Your task to perform on an android device: Go to settings Image 0: 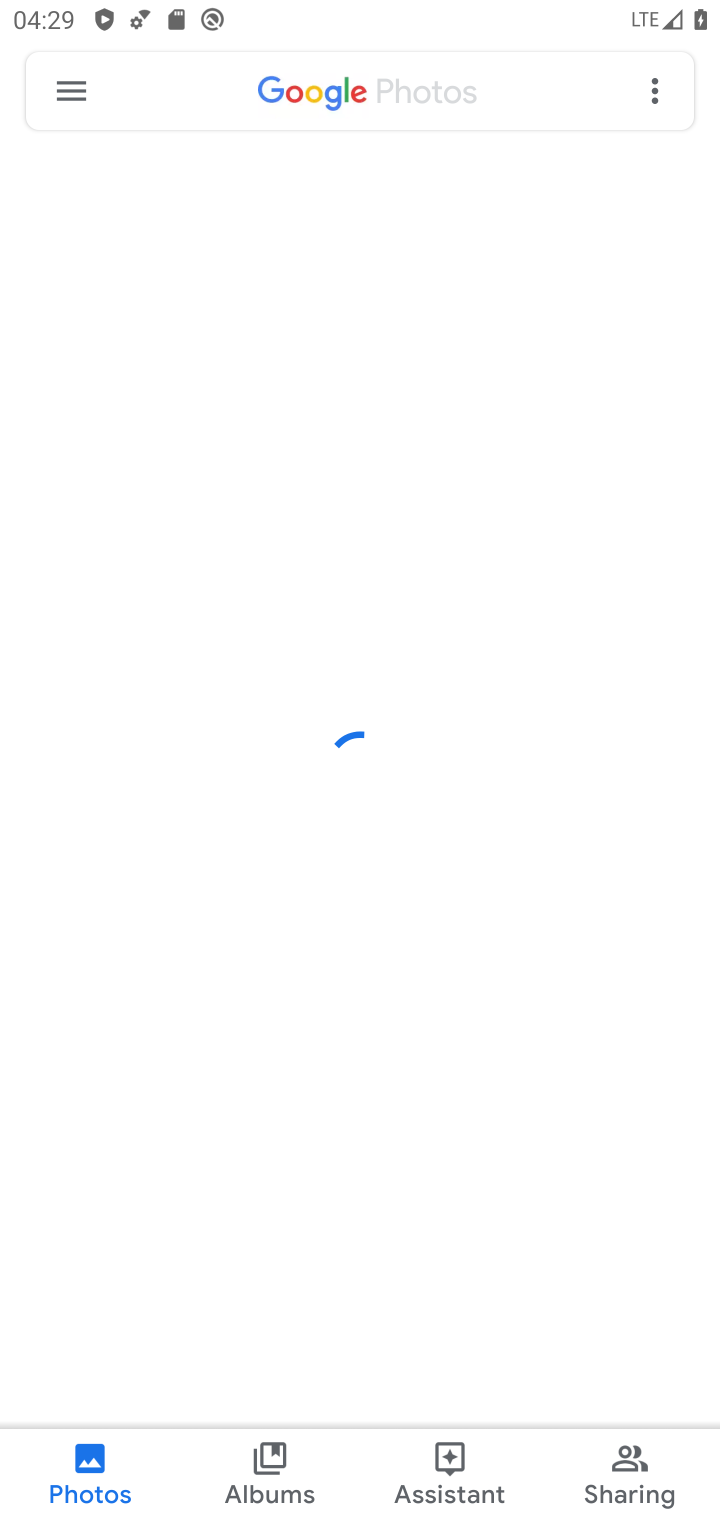
Step 0: press back button
Your task to perform on an android device: Go to settings Image 1: 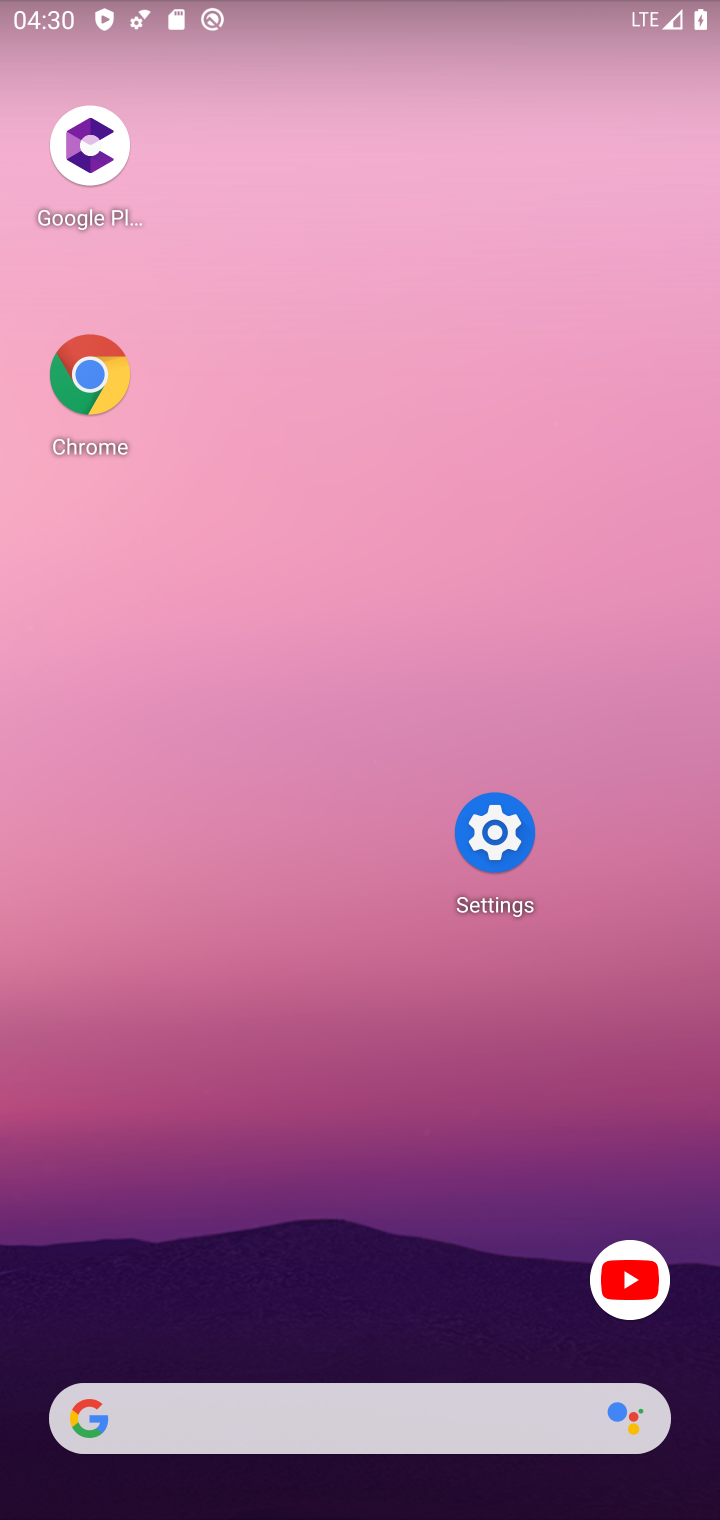
Step 1: drag from (531, 1071) to (407, 130)
Your task to perform on an android device: Go to settings Image 2: 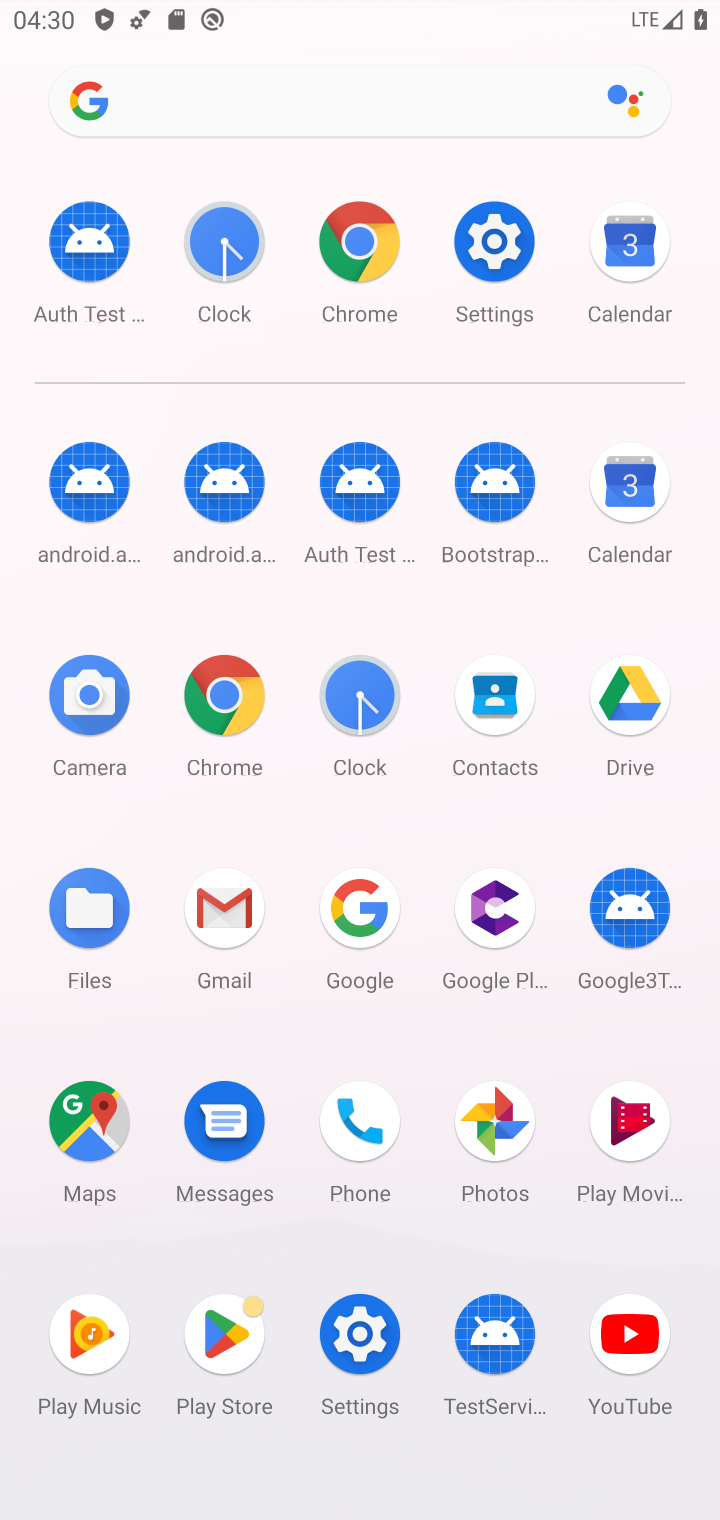
Step 2: click (486, 267)
Your task to perform on an android device: Go to settings Image 3: 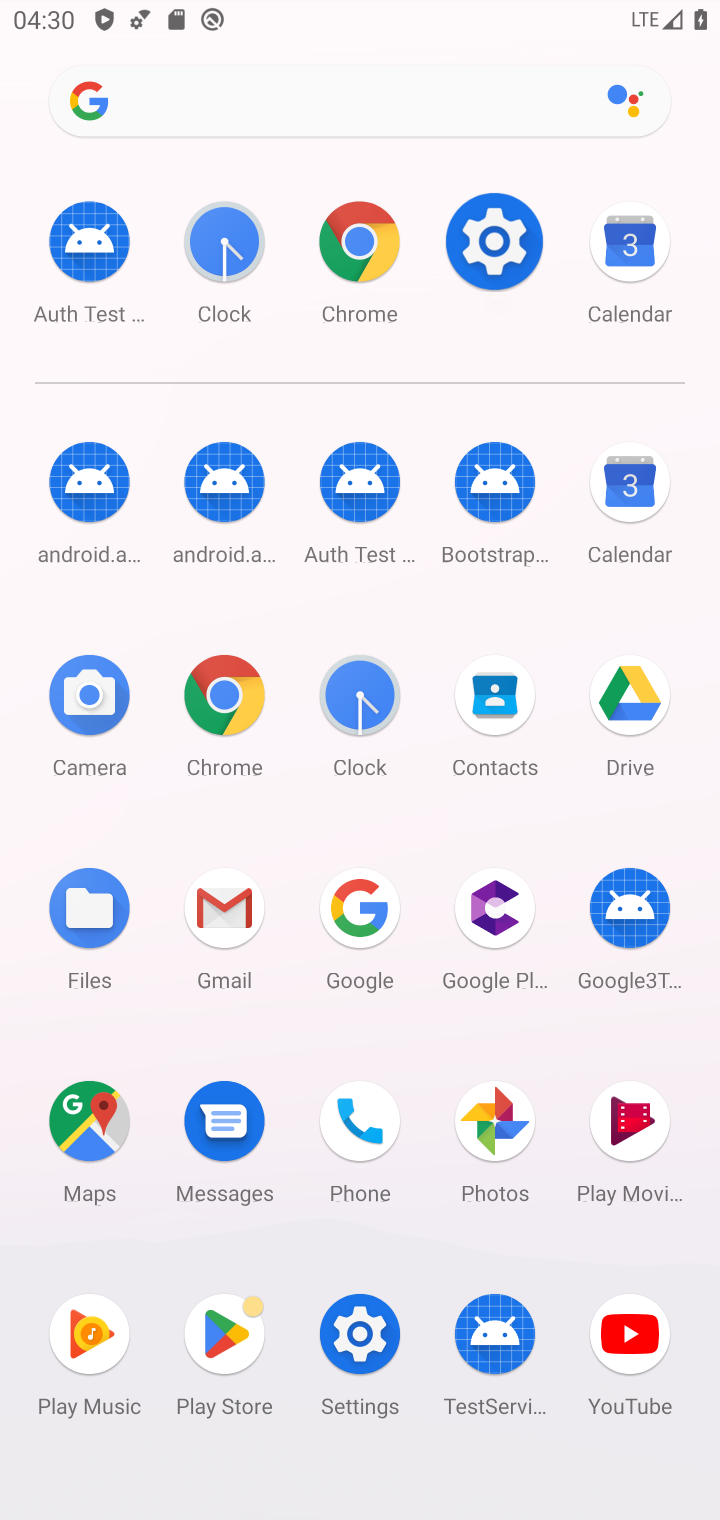
Step 3: click (498, 251)
Your task to perform on an android device: Go to settings Image 4: 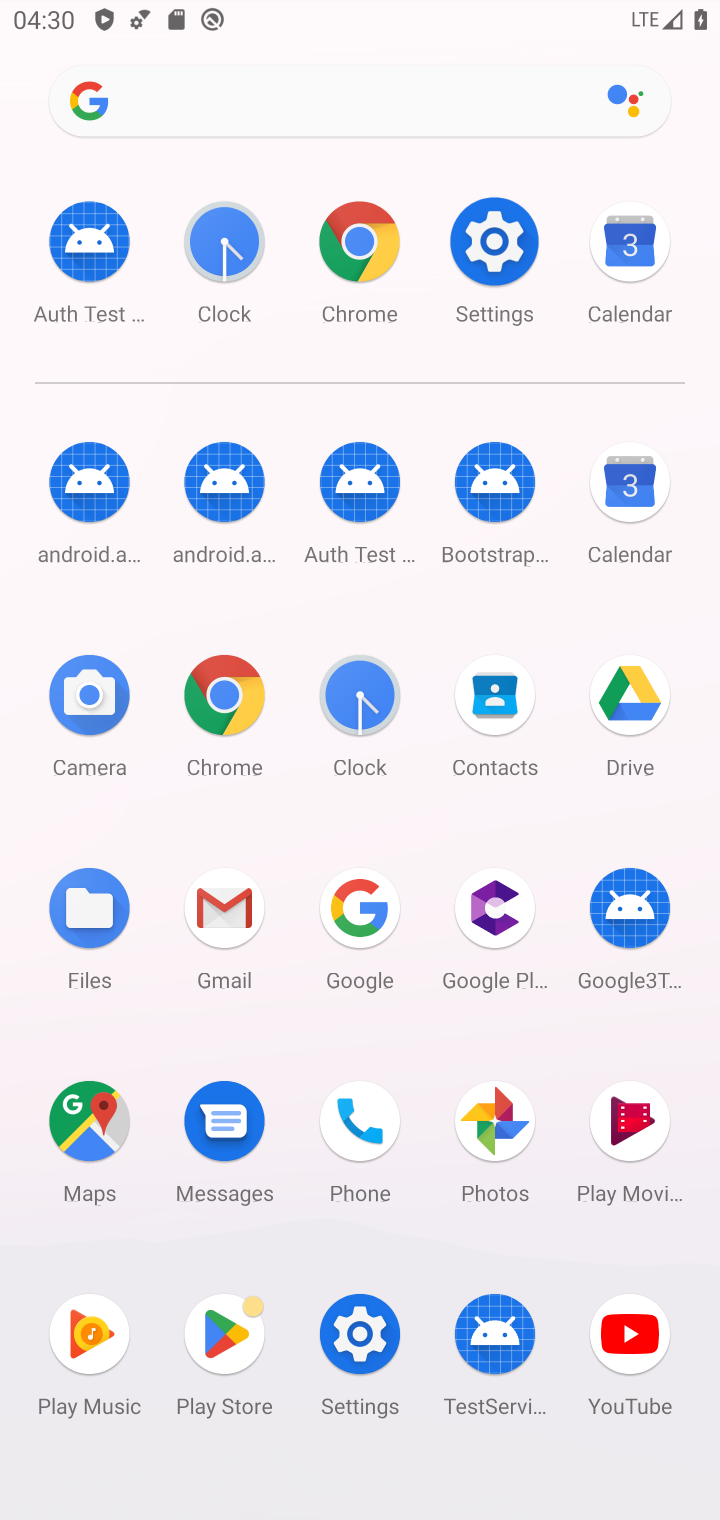
Step 4: click (504, 251)
Your task to perform on an android device: Go to settings Image 5: 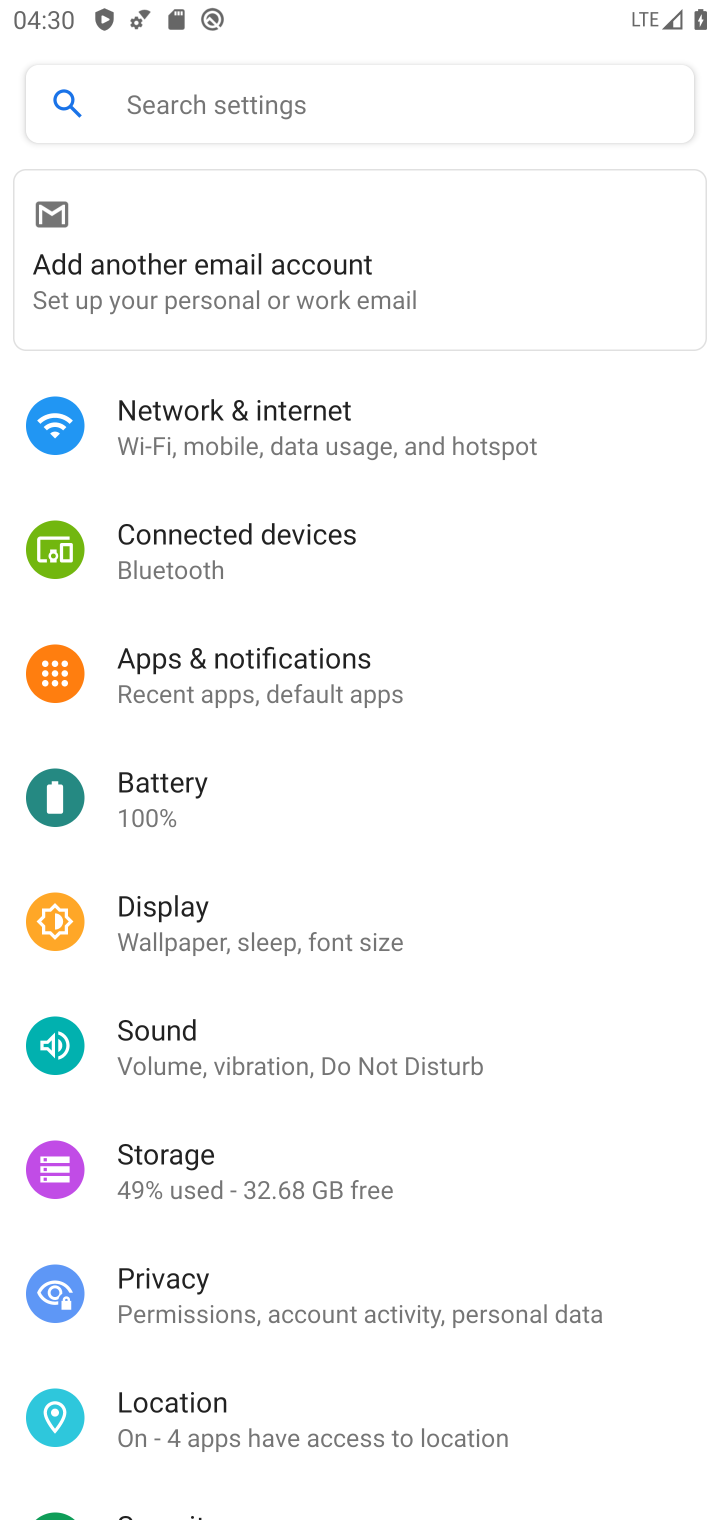
Step 5: task complete